Your task to perform on an android device: open wifi settings Image 0: 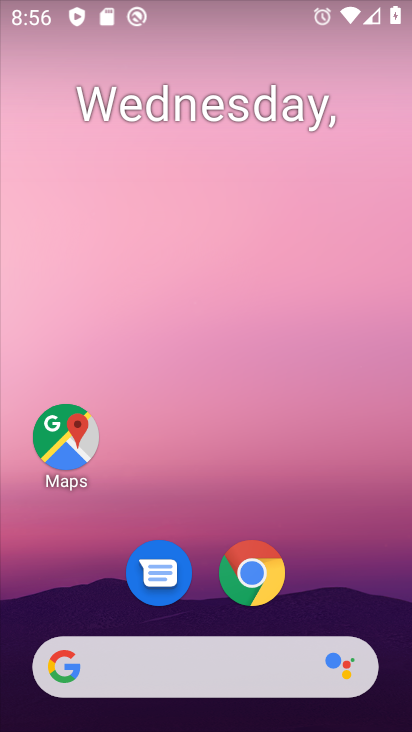
Step 0: drag from (240, 669) to (264, 10)
Your task to perform on an android device: open wifi settings Image 1: 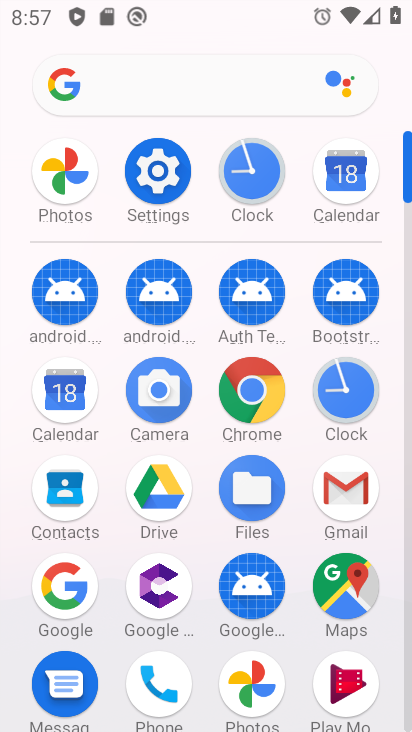
Step 1: click (158, 175)
Your task to perform on an android device: open wifi settings Image 2: 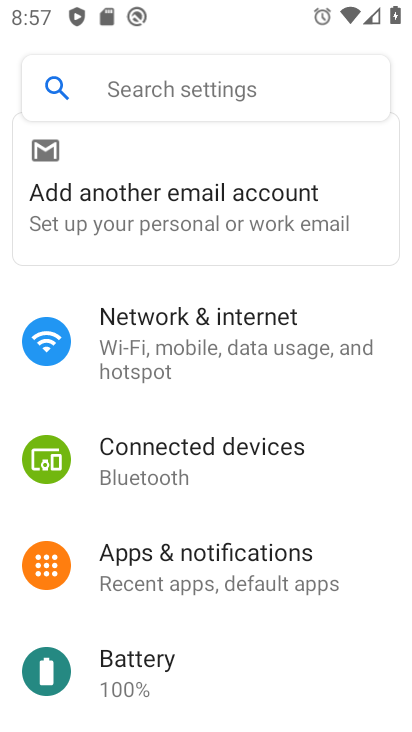
Step 2: click (292, 363)
Your task to perform on an android device: open wifi settings Image 3: 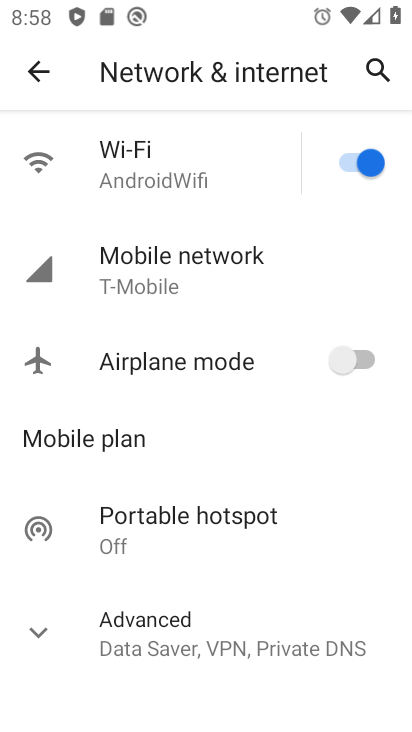
Step 3: click (200, 141)
Your task to perform on an android device: open wifi settings Image 4: 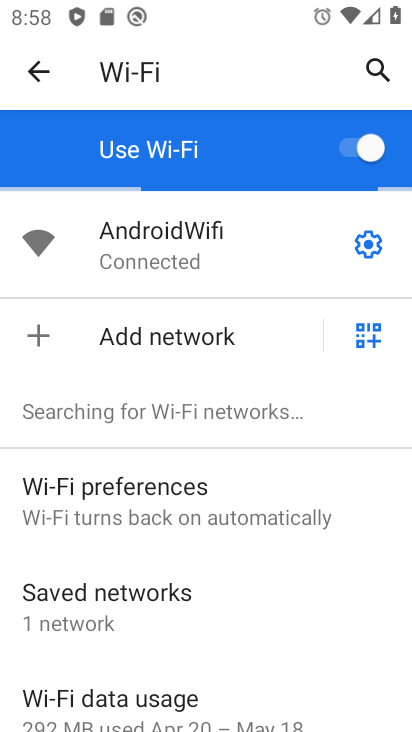
Step 4: task complete